Your task to perform on an android device: Toggle the flashlight Image 0: 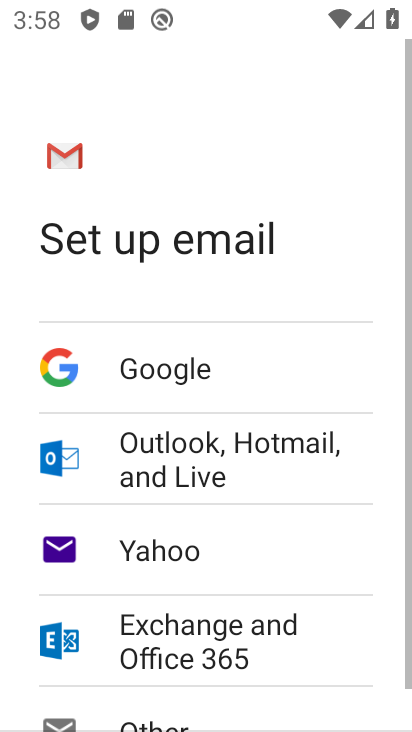
Step 0: press home button
Your task to perform on an android device: Toggle the flashlight Image 1: 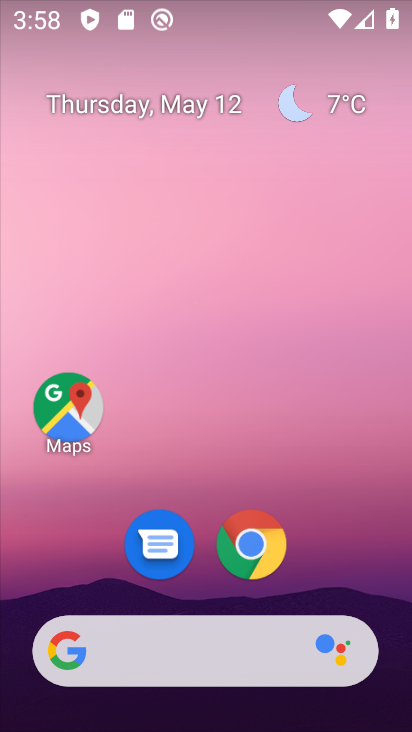
Step 1: task complete